Your task to perform on an android device: What's the weather today? Image 0: 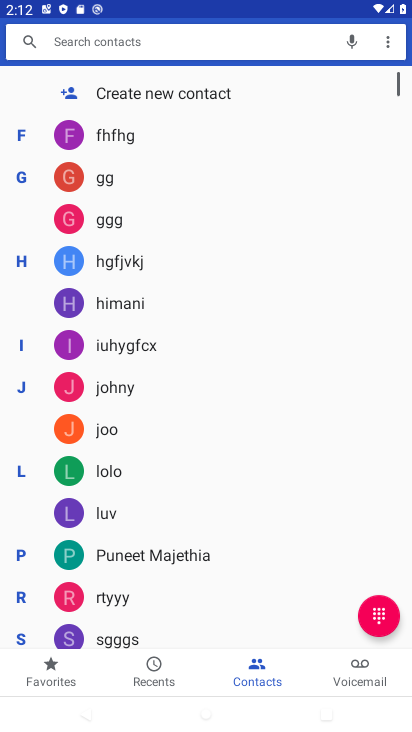
Step 0: press home button
Your task to perform on an android device: What's the weather today? Image 1: 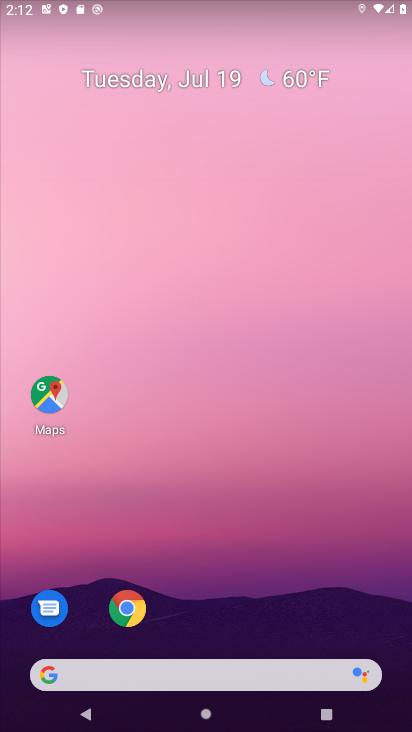
Step 1: drag from (258, 650) to (13, 545)
Your task to perform on an android device: What's the weather today? Image 2: 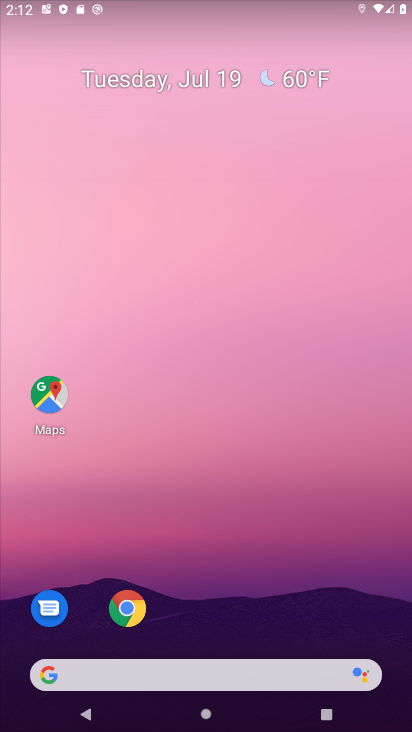
Step 2: drag from (281, 606) to (125, 0)
Your task to perform on an android device: What's the weather today? Image 3: 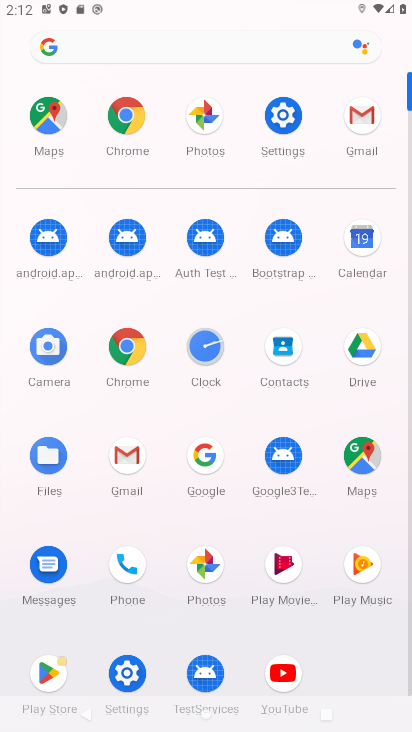
Step 3: click (199, 455)
Your task to perform on an android device: What's the weather today? Image 4: 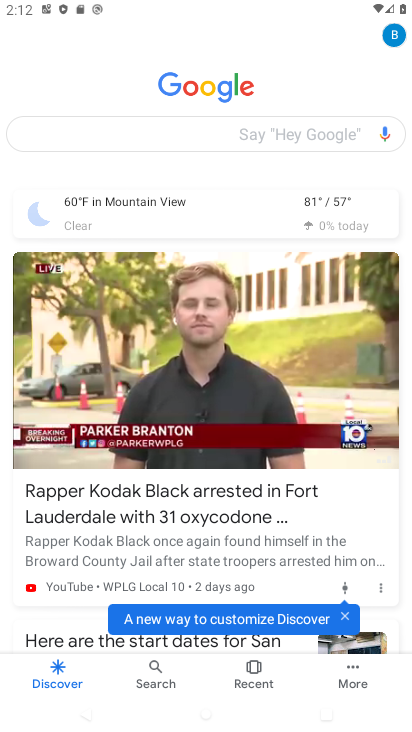
Step 4: click (138, 212)
Your task to perform on an android device: What's the weather today? Image 5: 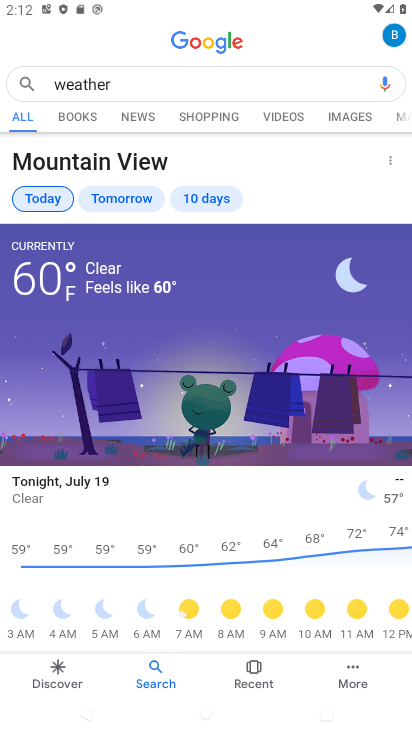
Step 5: task complete